Your task to perform on an android device: Open Chrome and go to settings Image 0: 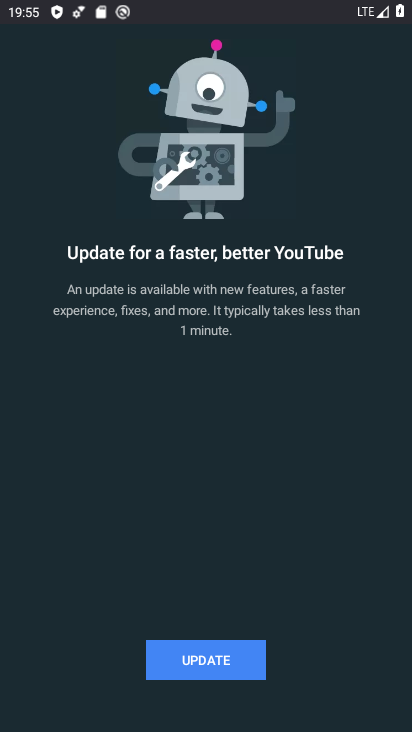
Step 0: press back button
Your task to perform on an android device: Open Chrome and go to settings Image 1: 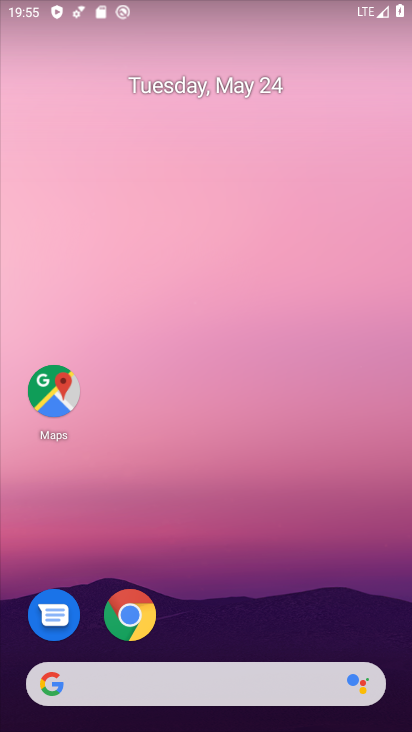
Step 1: click (125, 622)
Your task to perform on an android device: Open Chrome and go to settings Image 2: 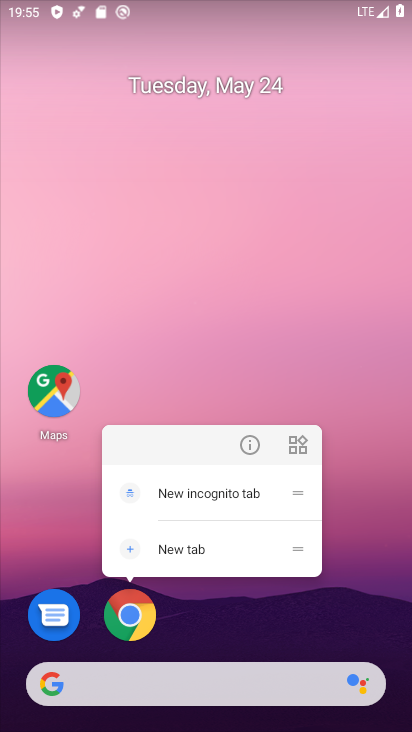
Step 2: click (149, 613)
Your task to perform on an android device: Open Chrome and go to settings Image 3: 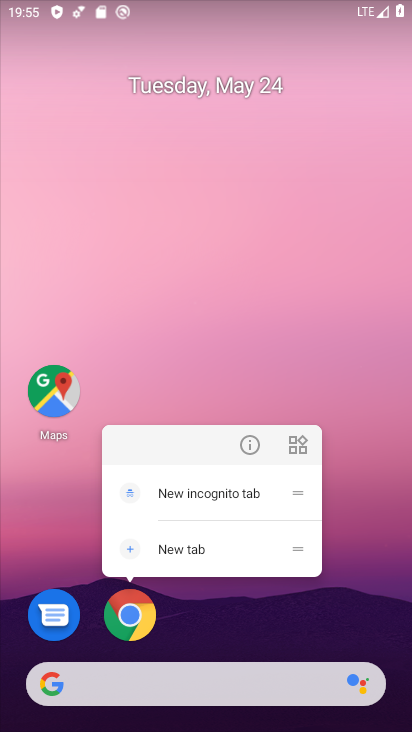
Step 3: click (129, 607)
Your task to perform on an android device: Open Chrome and go to settings Image 4: 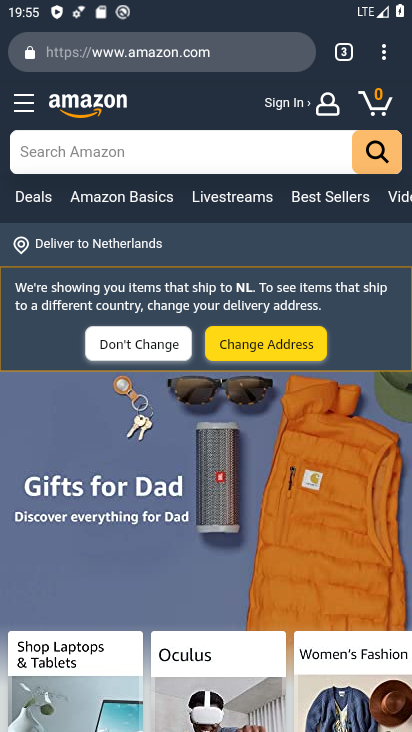
Step 4: click (375, 56)
Your task to perform on an android device: Open Chrome and go to settings Image 5: 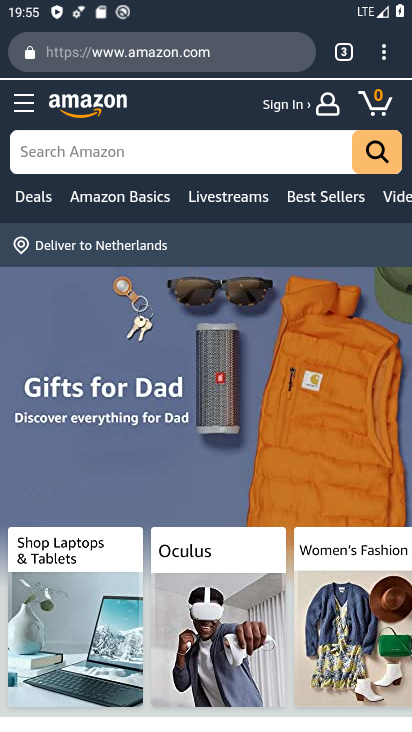
Step 5: click (389, 42)
Your task to perform on an android device: Open Chrome and go to settings Image 6: 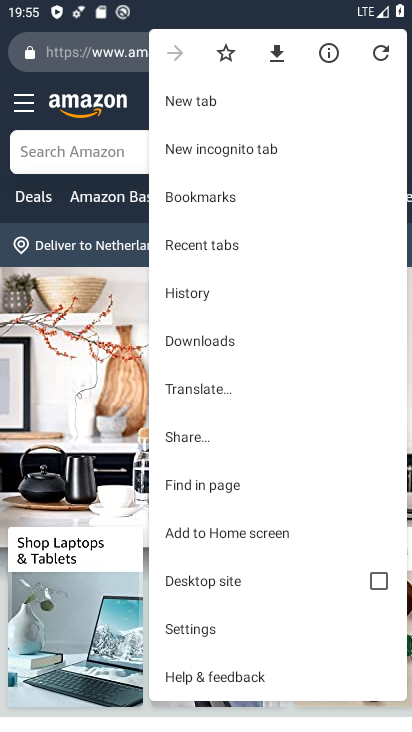
Step 6: click (224, 630)
Your task to perform on an android device: Open Chrome and go to settings Image 7: 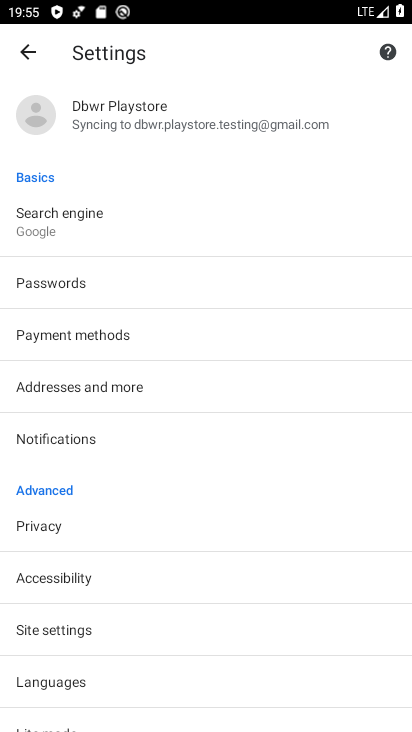
Step 7: task complete